Your task to perform on an android device: Open the phone app and click the voicemail tab. Image 0: 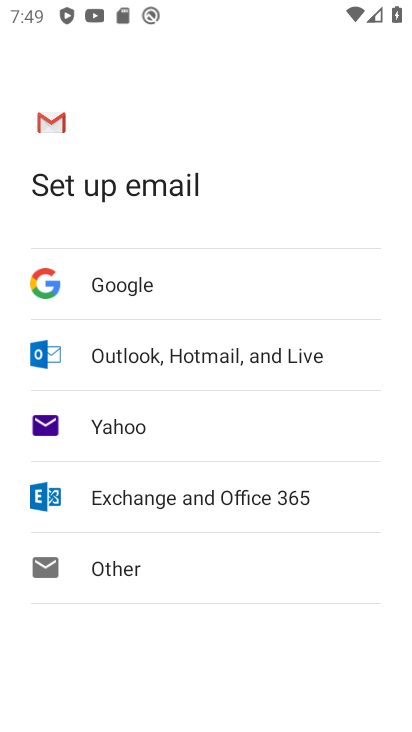
Step 0: press home button
Your task to perform on an android device: Open the phone app and click the voicemail tab. Image 1: 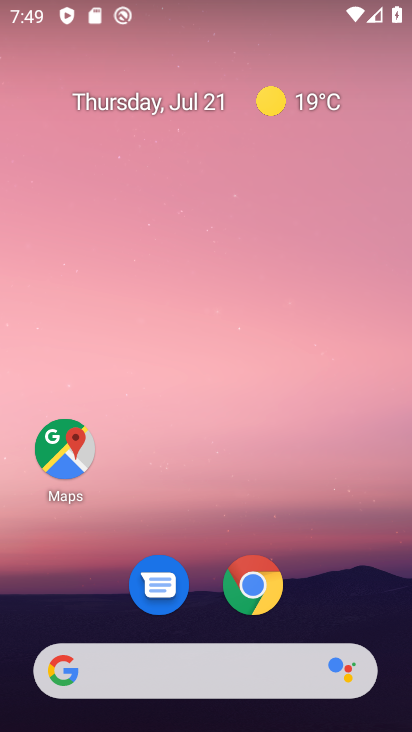
Step 1: drag from (326, 581) to (329, 31)
Your task to perform on an android device: Open the phone app and click the voicemail tab. Image 2: 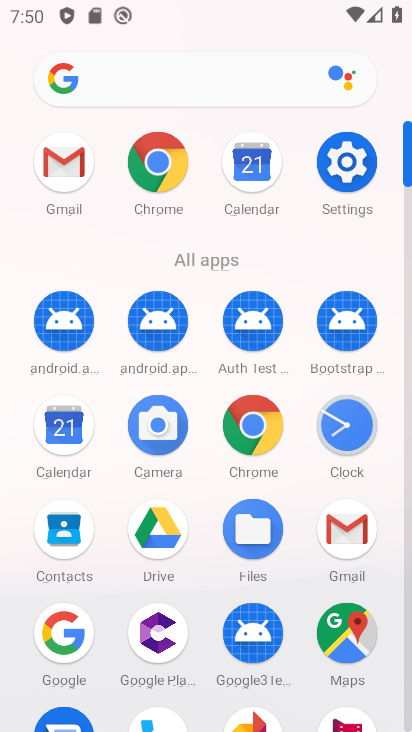
Step 2: drag from (117, 565) to (112, 273)
Your task to perform on an android device: Open the phone app and click the voicemail tab. Image 3: 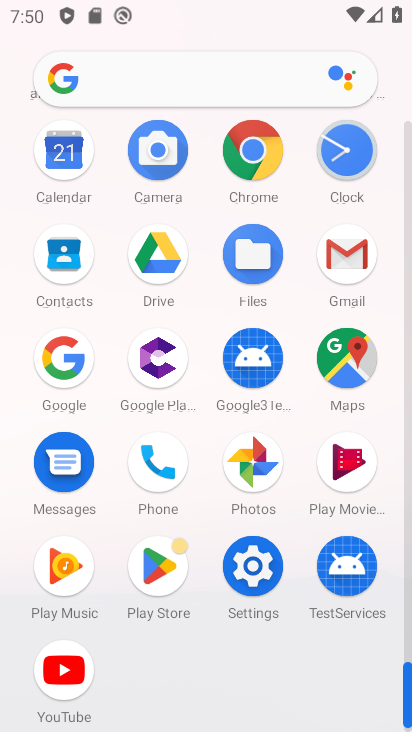
Step 3: click (152, 458)
Your task to perform on an android device: Open the phone app and click the voicemail tab. Image 4: 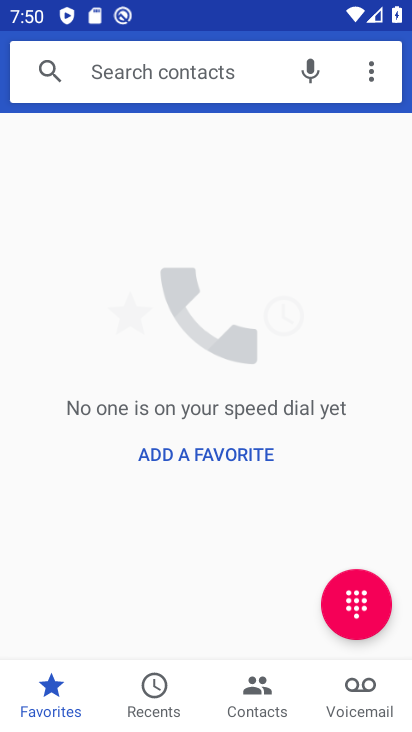
Step 4: click (366, 710)
Your task to perform on an android device: Open the phone app and click the voicemail tab. Image 5: 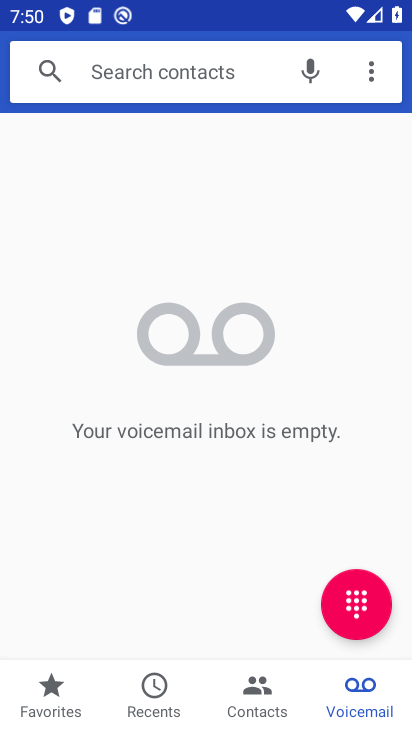
Step 5: task complete